Your task to perform on an android device: open app "McDonald's" Image 0: 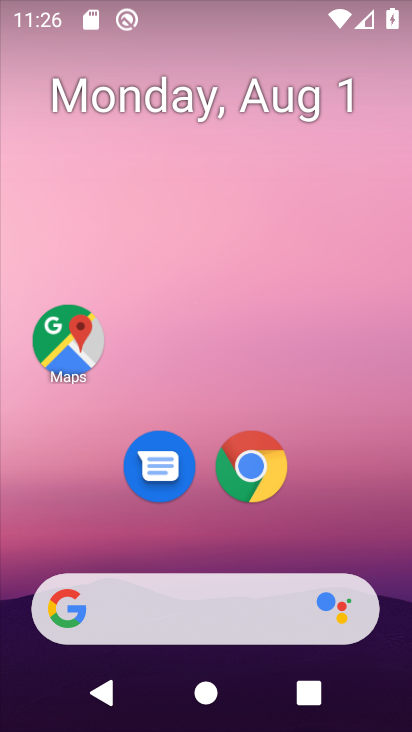
Step 0: drag from (238, 723) to (224, 106)
Your task to perform on an android device: open app "McDonald's" Image 1: 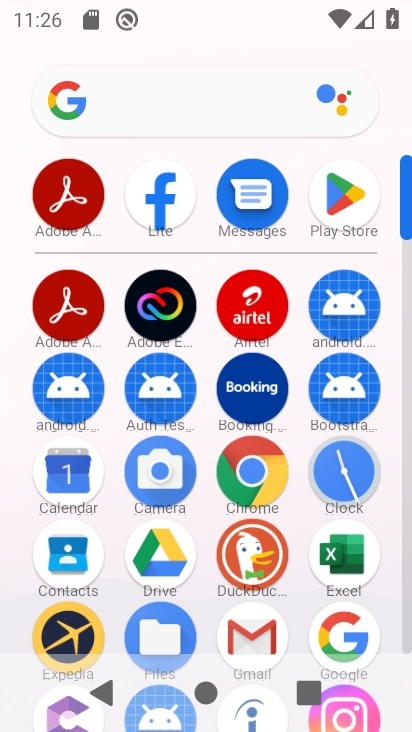
Step 1: click (349, 192)
Your task to perform on an android device: open app "McDonald's" Image 2: 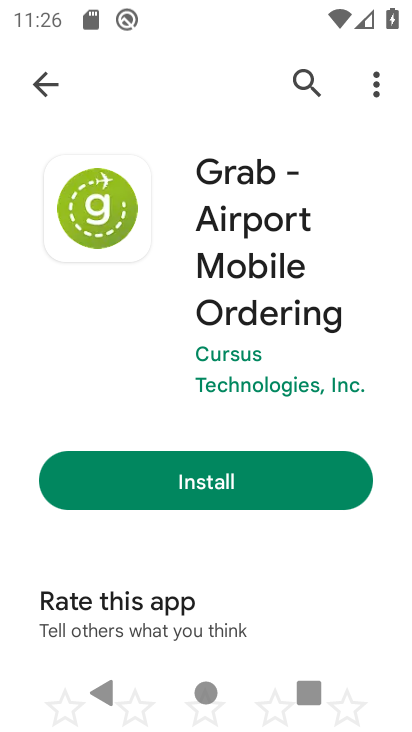
Step 2: click (305, 77)
Your task to perform on an android device: open app "McDonald's" Image 3: 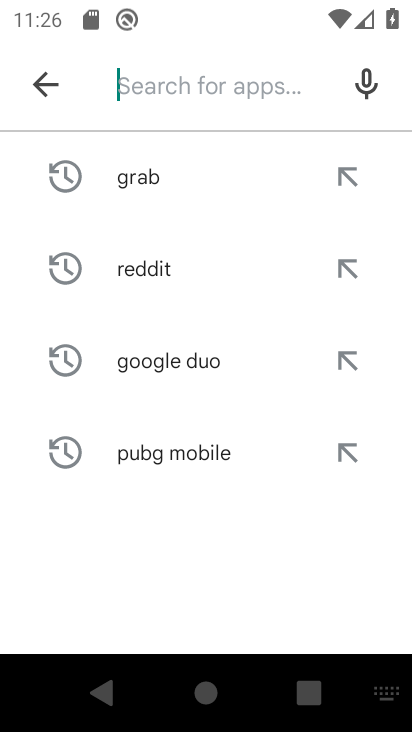
Step 3: type "Mcdonald's"
Your task to perform on an android device: open app "McDonald's" Image 4: 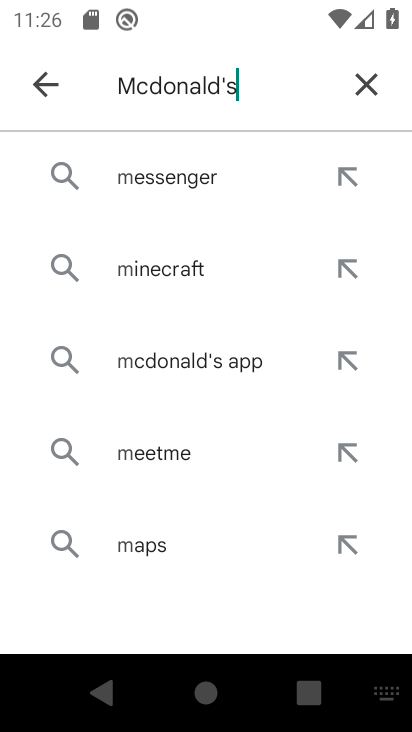
Step 4: type ""
Your task to perform on an android device: open app "McDonald's" Image 5: 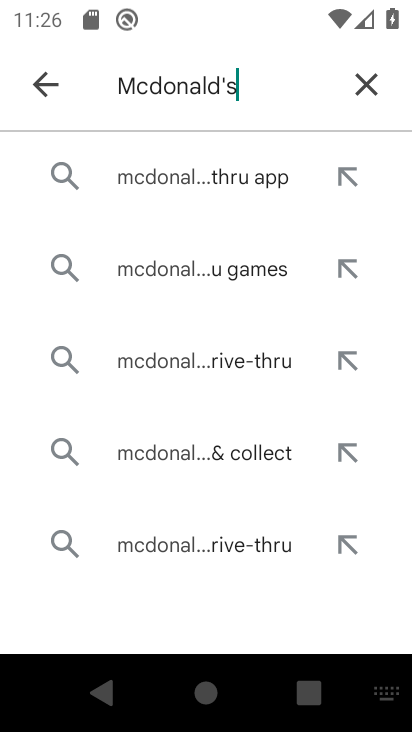
Step 5: click (173, 172)
Your task to perform on an android device: open app "McDonald's" Image 6: 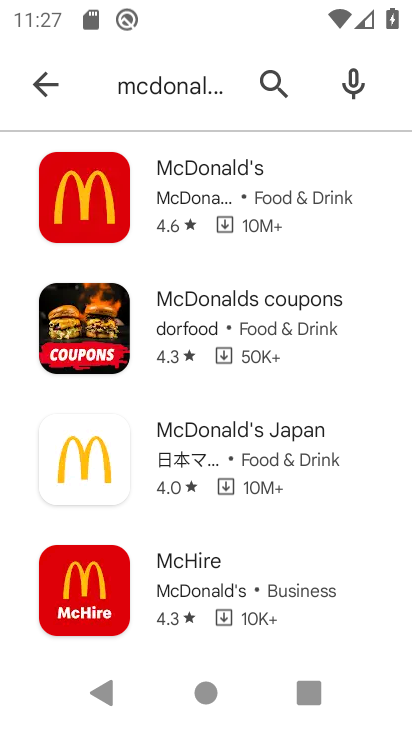
Step 6: click (208, 174)
Your task to perform on an android device: open app "McDonald's" Image 7: 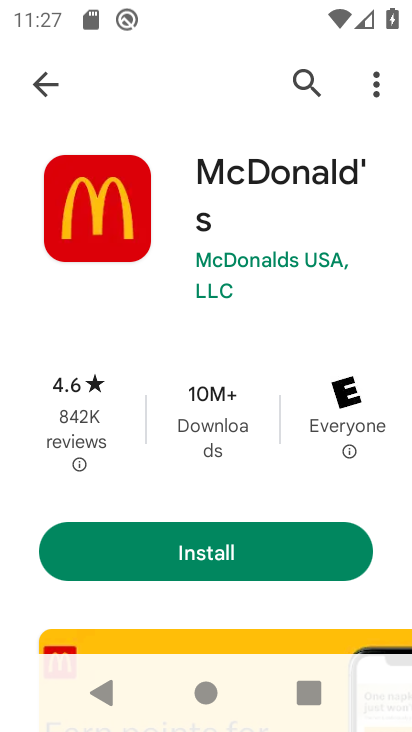
Step 7: task complete